Your task to perform on an android device: set default search engine in the chrome app Image 0: 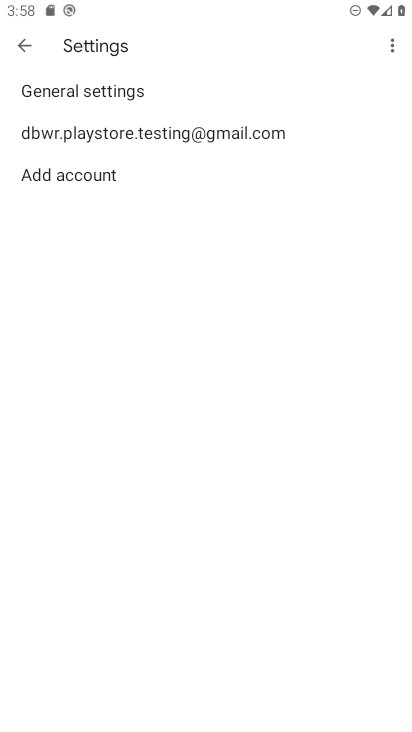
Step 0: press home button
Your task to perform on an android device: set default search engine in the chrome app Image 1: 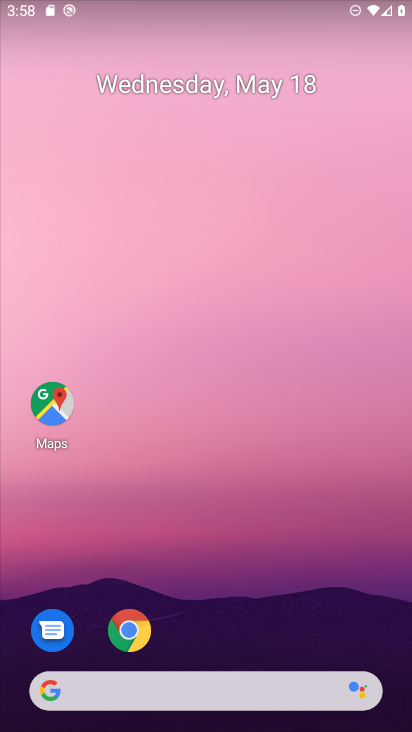
Step 1: click (125, 622)
Your task to perform on an android device: set default search engine in the chrome app Image 2: 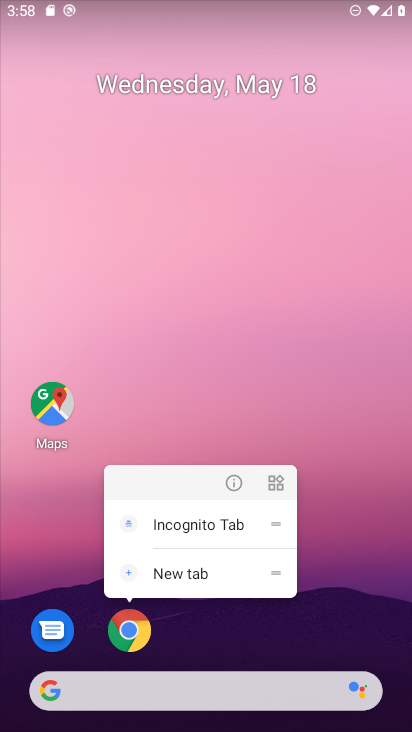
Step 2: click (125, 625)
Your task to perform on an android device: set default search engine in the chrome app Image 3: 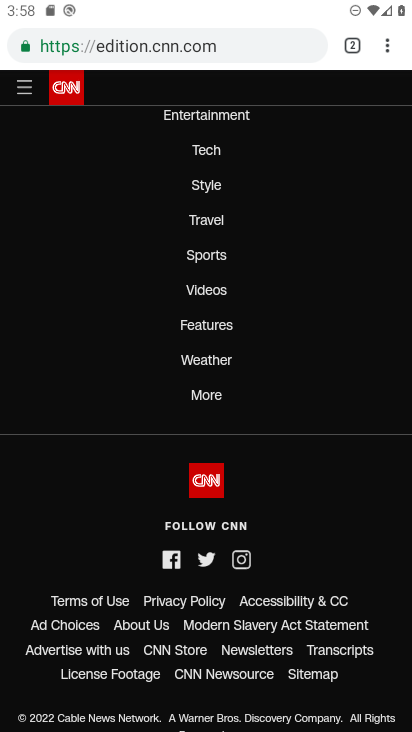
Step 3: click (385, 46)
Your task to perform on an android device: set default search engine in the chrome app Image 4: 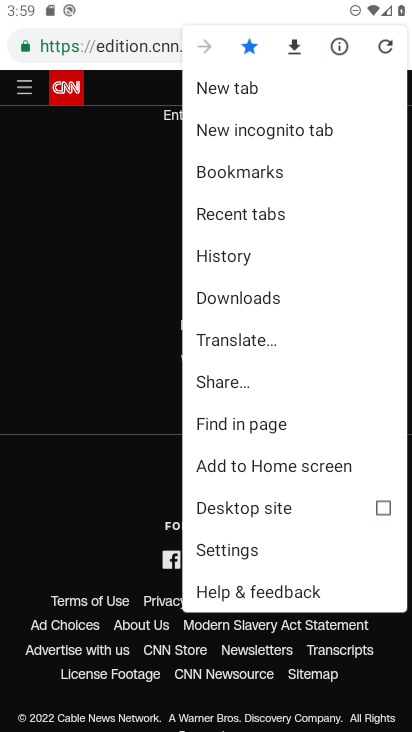
Step 4: click (266, 545)
Your task to perform on an android device: set default search engine in the chrome app Image 5: 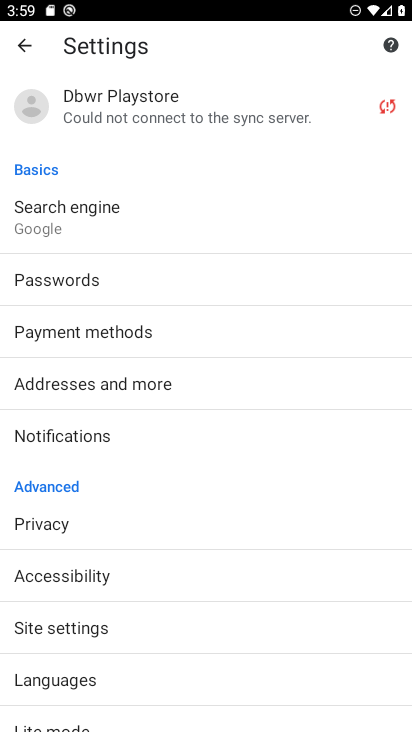
Step 5: click (83, 223)
Your task to perform on an android device: set default search engine in the chrome app Image 6: 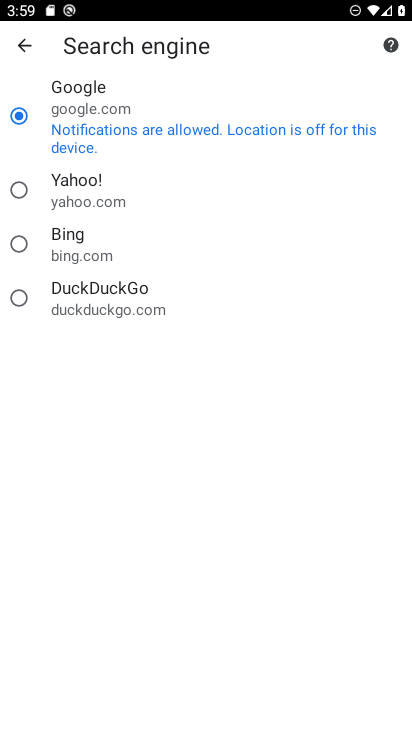
Step 6: click (25, 239)
Your task to perform on an android device: set default search engine in the chrome app Image 7: 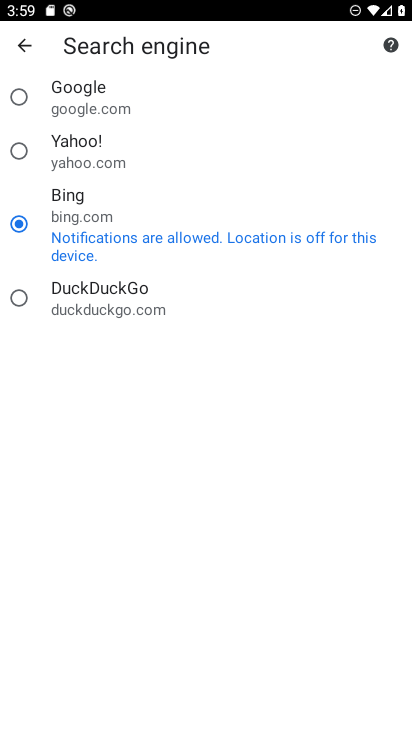
Step 7: task complete